Your task to perform on an android device: Open Google Chrome and click the shortcut for Amazon.com Image 0: 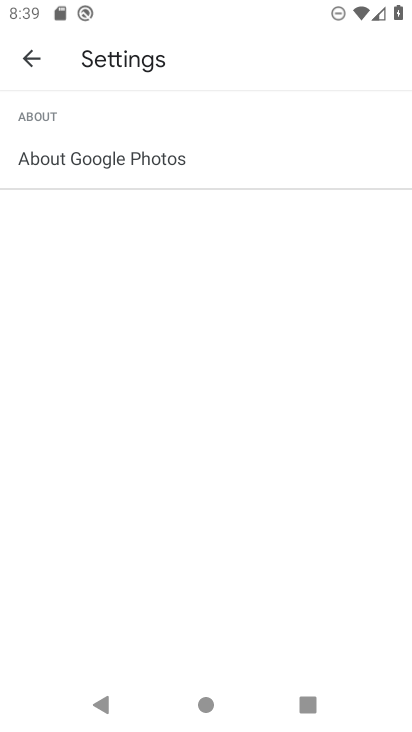
Step 0: press home button
Your task to perform on an android device: Open Google Chrome and click the shortcut for Amazon.com Image 1: 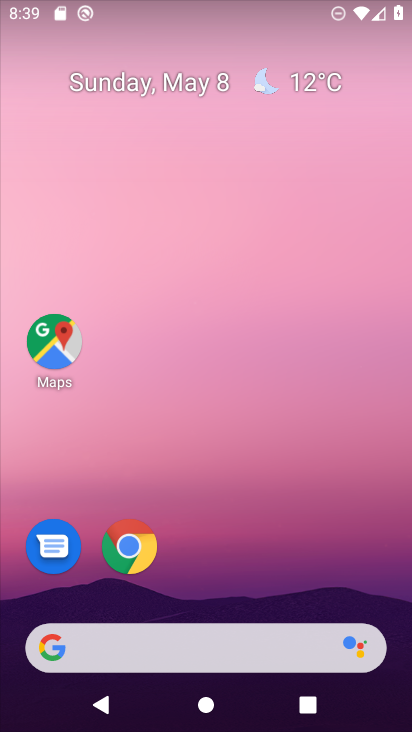
Step 1: click (122, 556)
Your task to perform on an android device: Open Google Chrome and click the shortcut for Amazon.com Image 2: 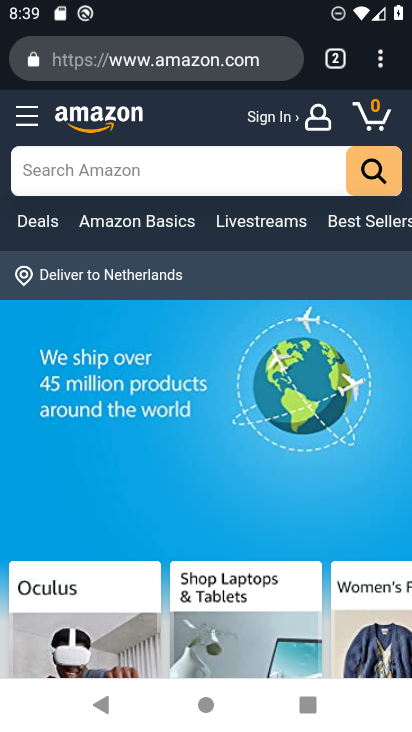
Step 2: click (383, 60)
Your task to perform on an android device: Open Google Chrome and click the shortcut for Amazon.com Image 3: 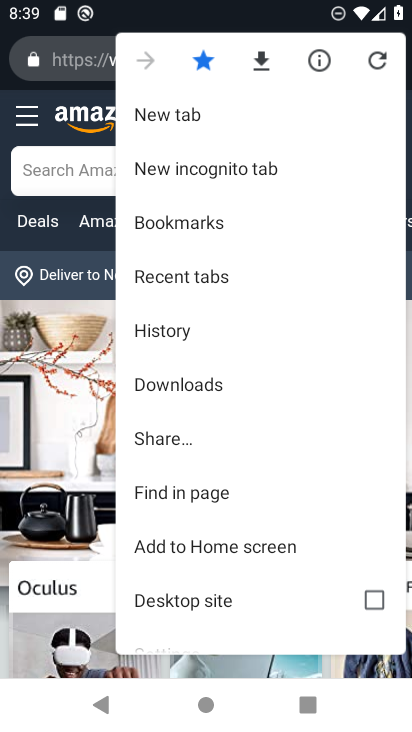
Step 3: click (256, 110)
Your task to perform on an android device: Open Google Chrome and click the shortcut for Amazon.com Image 4: 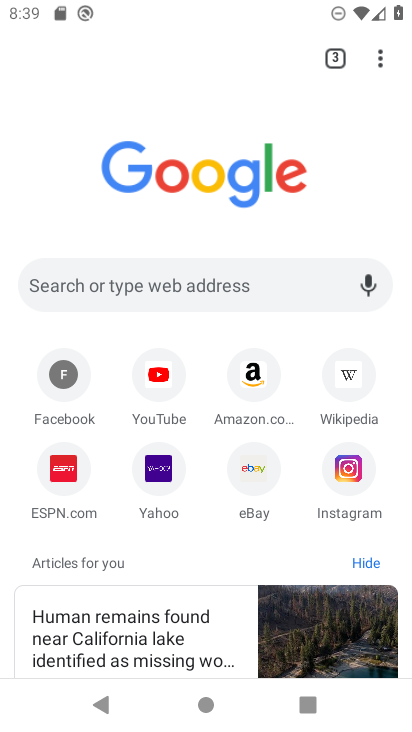
Step 4: click (248, 379)
Your task to perform on an android device: Open Google Chrome and click the shortcut for Amazon.com Image 5: 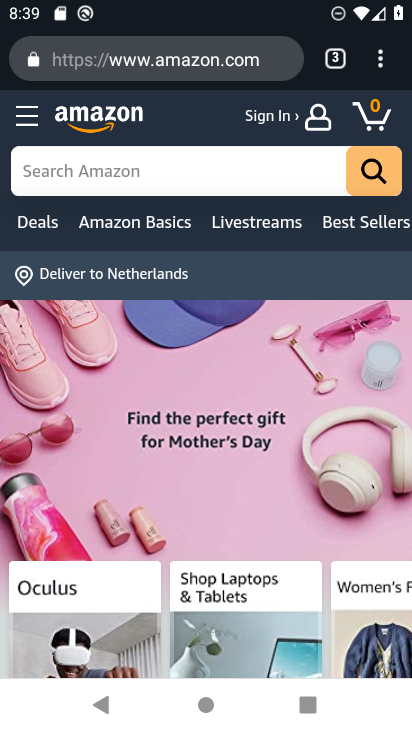
Step 5: task complete